Your task to perform on an android device: Add dell alienware to the cart on amazon, then select checkout. Image 0: 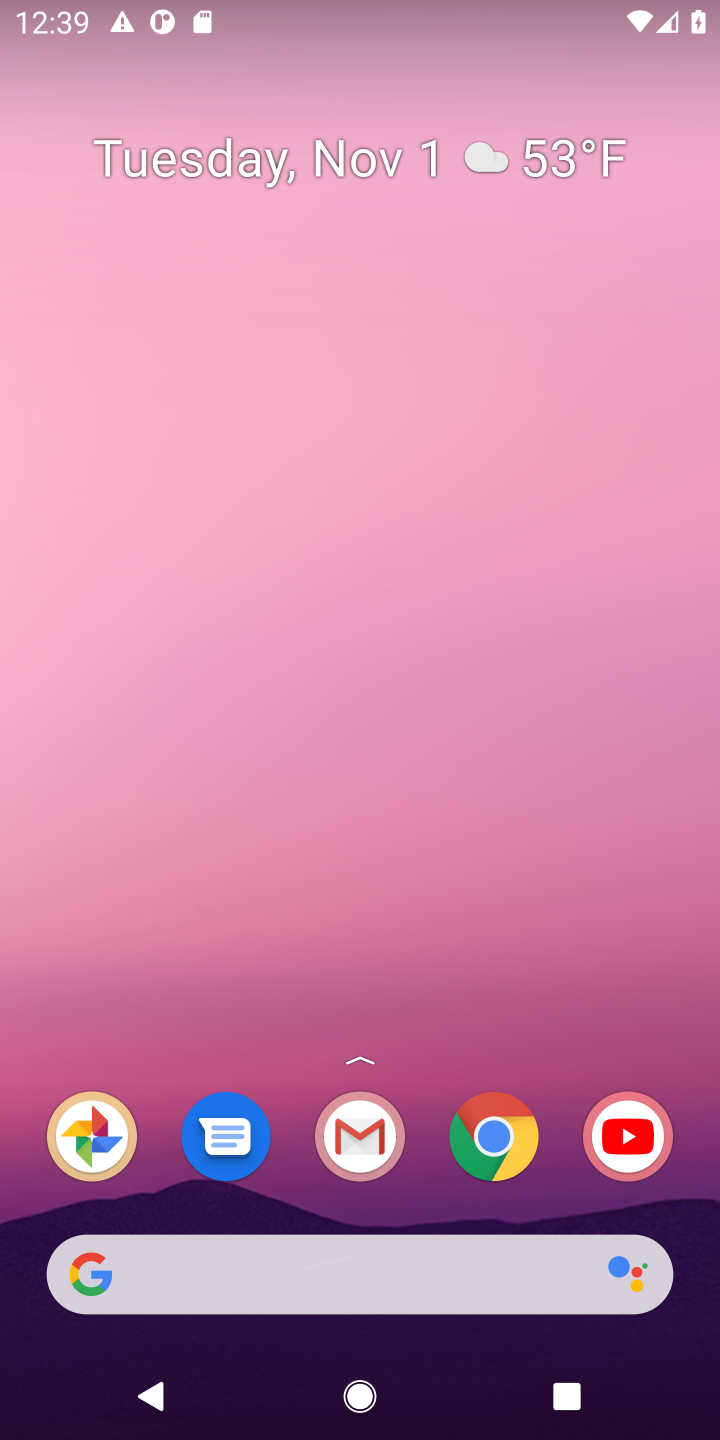
Step 0: click (150, 1280)
Your task to perform on an android device: Add dell alienware to the cart on amazon, then select checkout. Image 1: 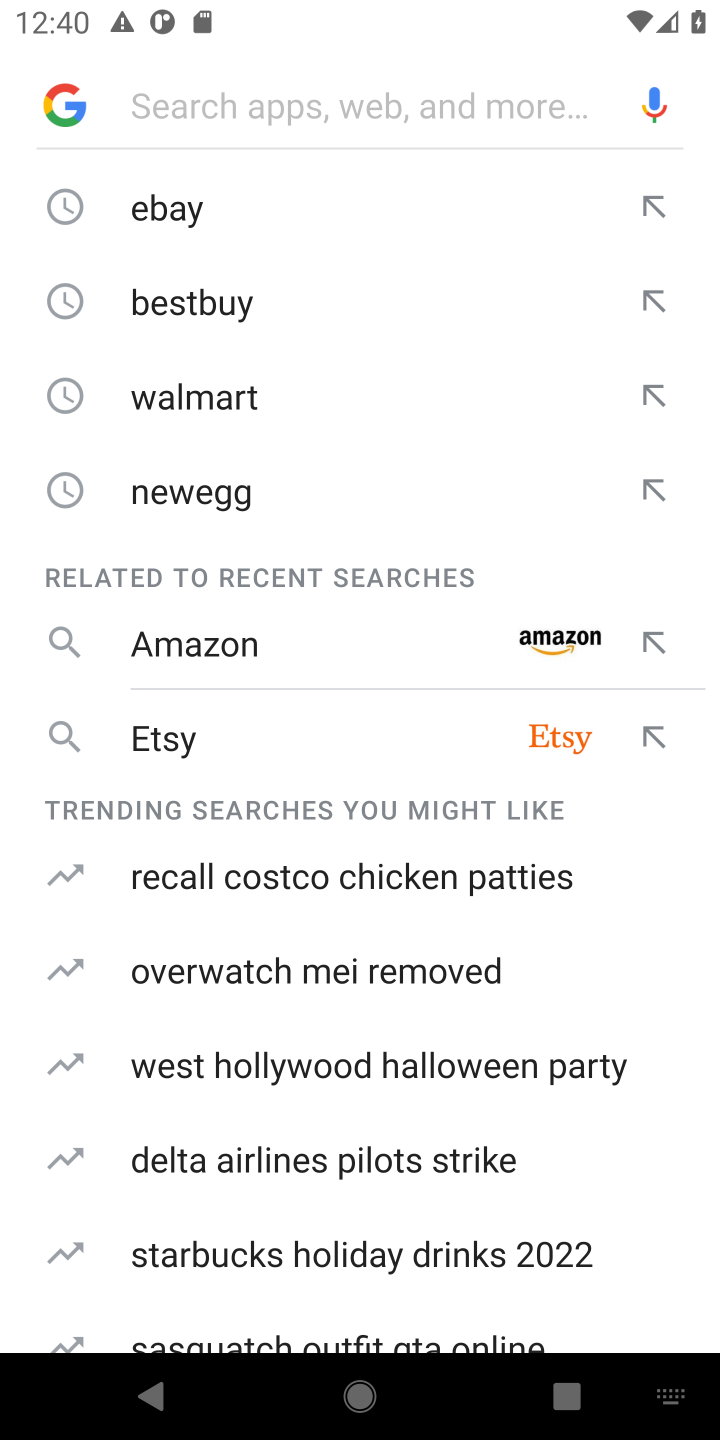
Step 1: type "amazon"
Your task to perform on an android device: Add dell alienware to the cart on amazon, then select checkout. Image 2: 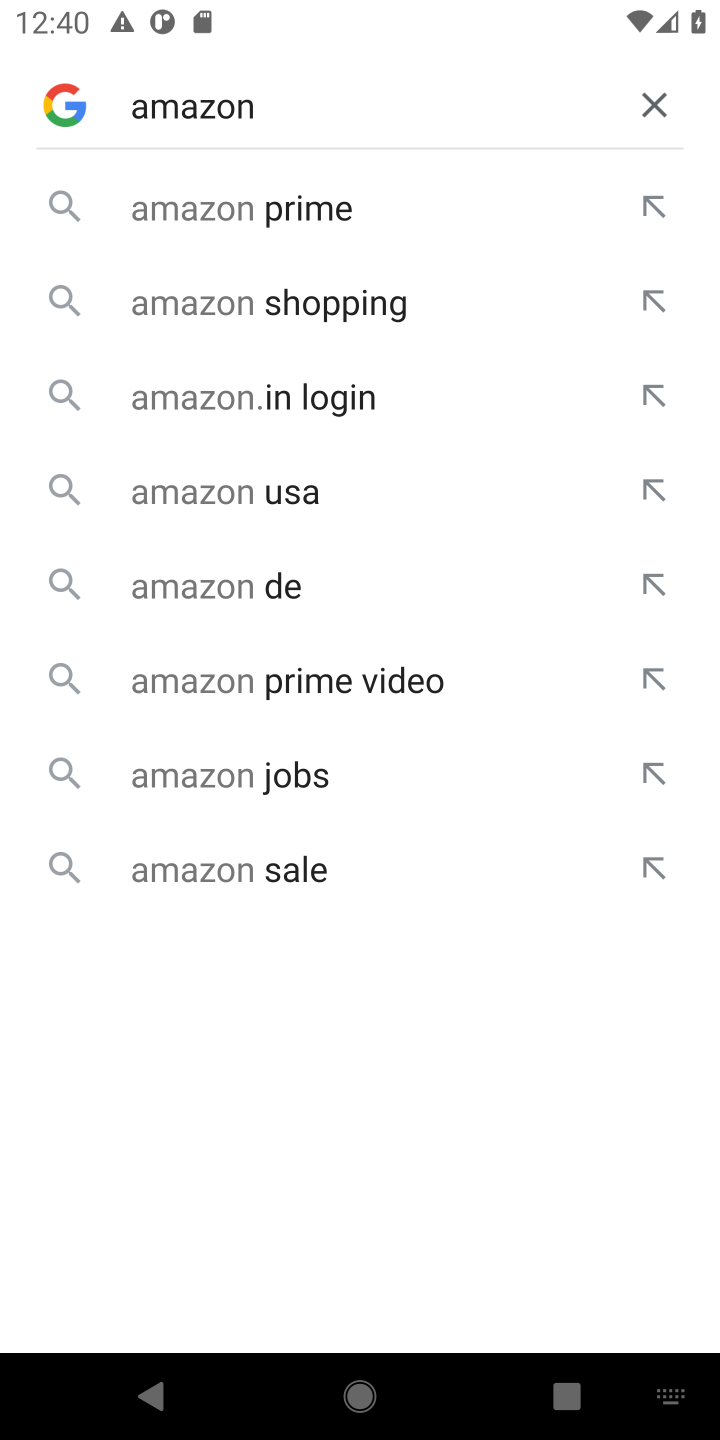
Step 2: press enter
Your task to perform on an android device: Add dell alienware to the cart on amazon, then select checkout. Image 3: 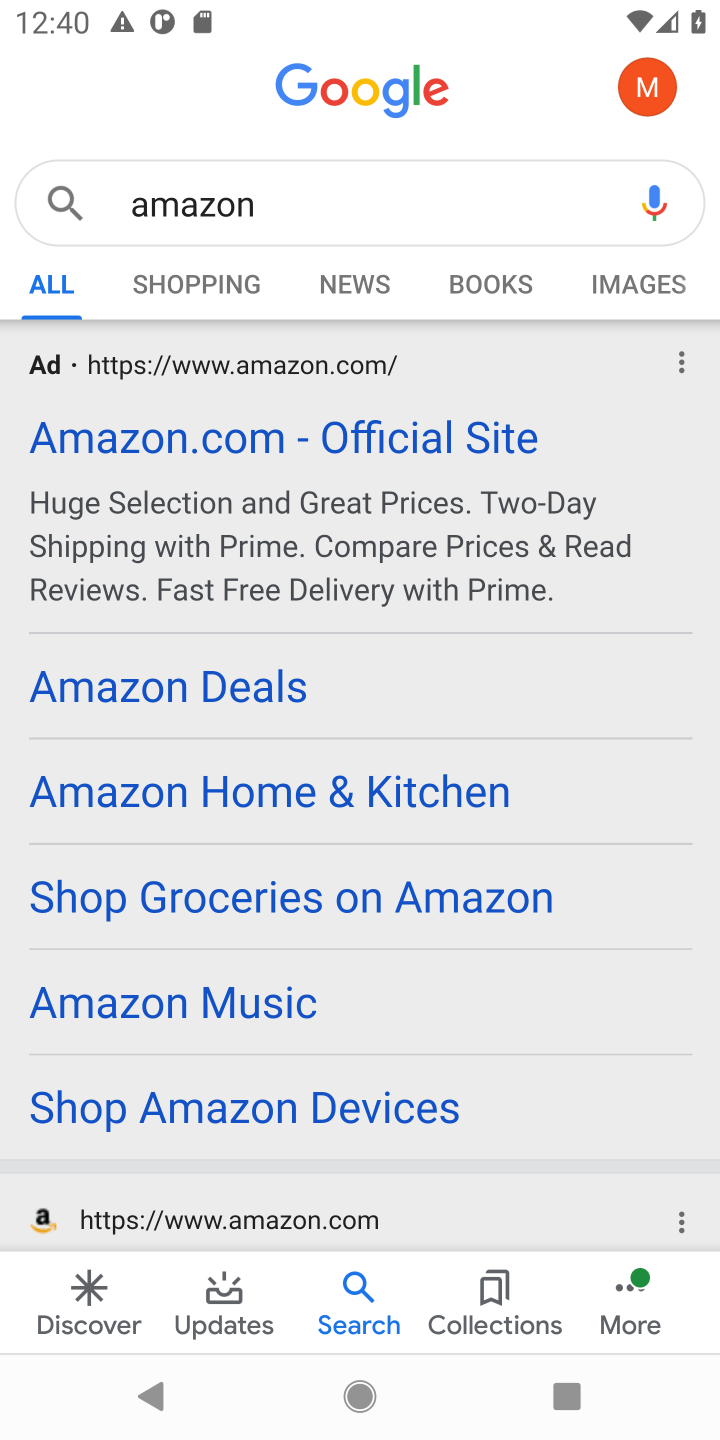
Step 3: click (227, 451)
Your task to perform on an android device: Add dell alienware to the cart on amazon, then select checkout. Image 4: 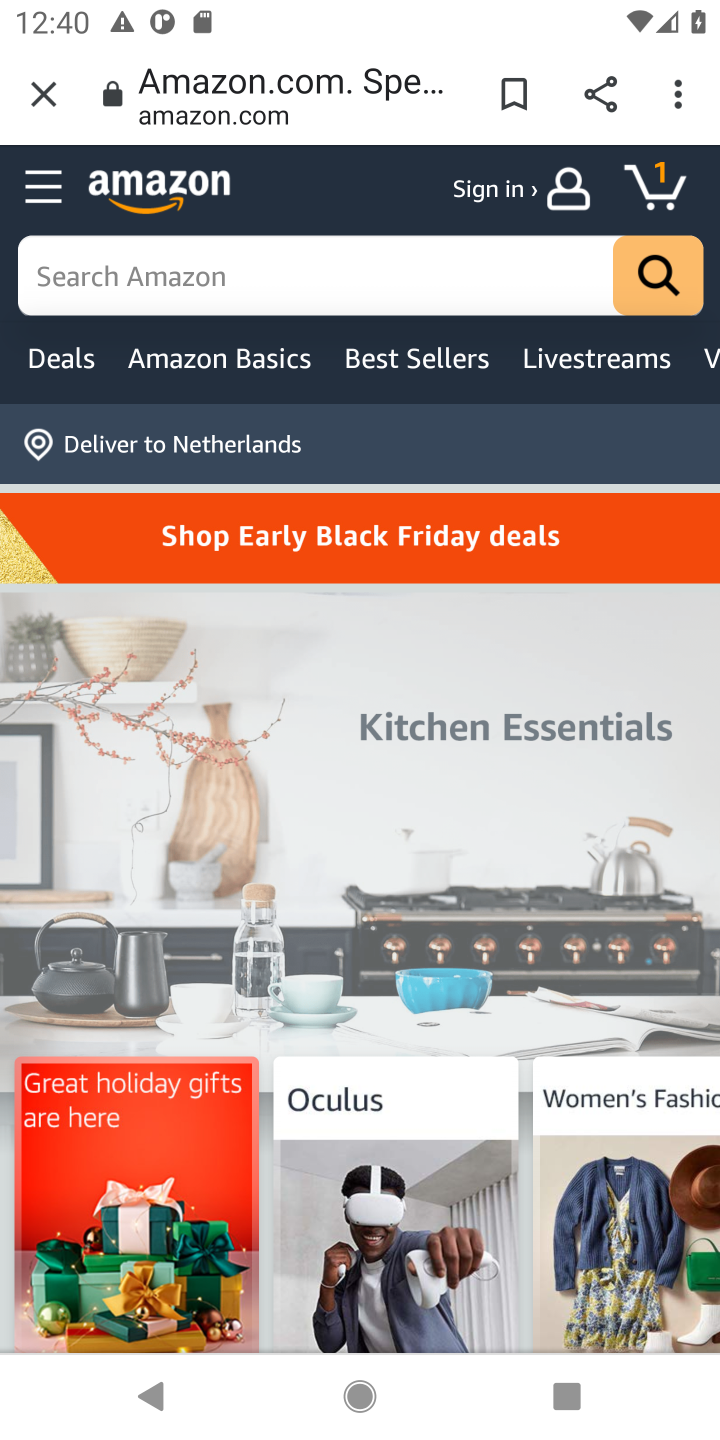
Step 4: click (73, 274)
Your task to perform on an android device: Add dell alienware to the cart on amazon, then select checkout. Image 5: 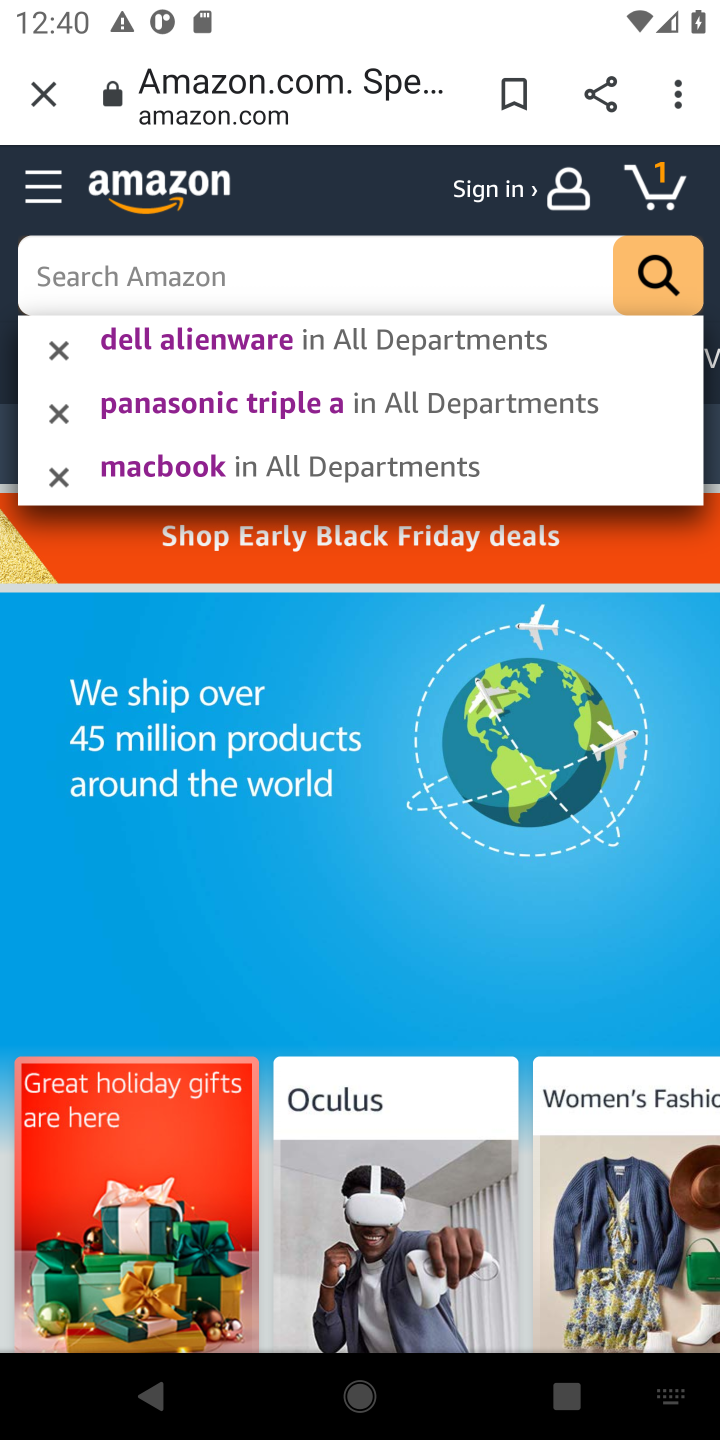
Step 5: click (219, 340)
Your task to perform on an android device: Add dell alienware to the cart on amazon, then select checkout. Image 6: 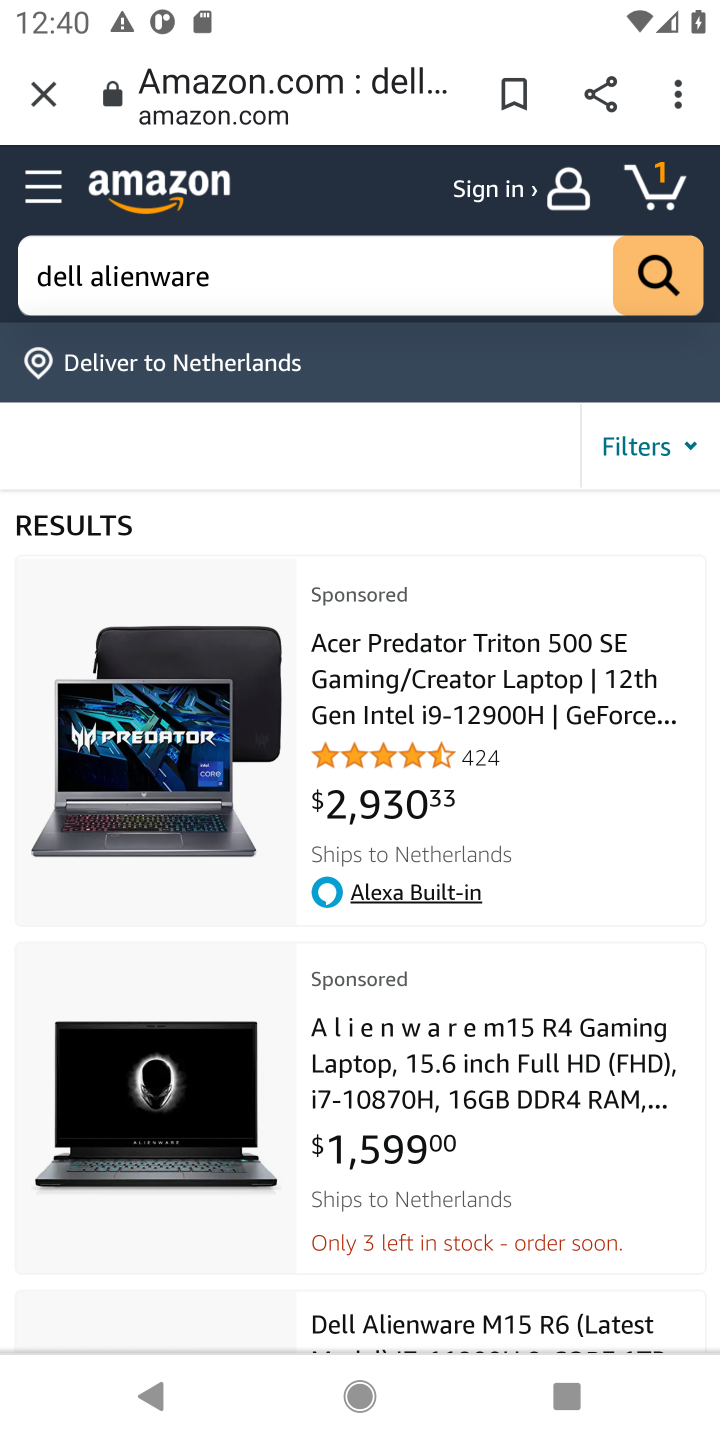
Step 6: drag from (535, 1034) to (580, 585)
Your task to perform on an android device: Add dell alienware to the cart on amazon, then select checkout. Image 7: 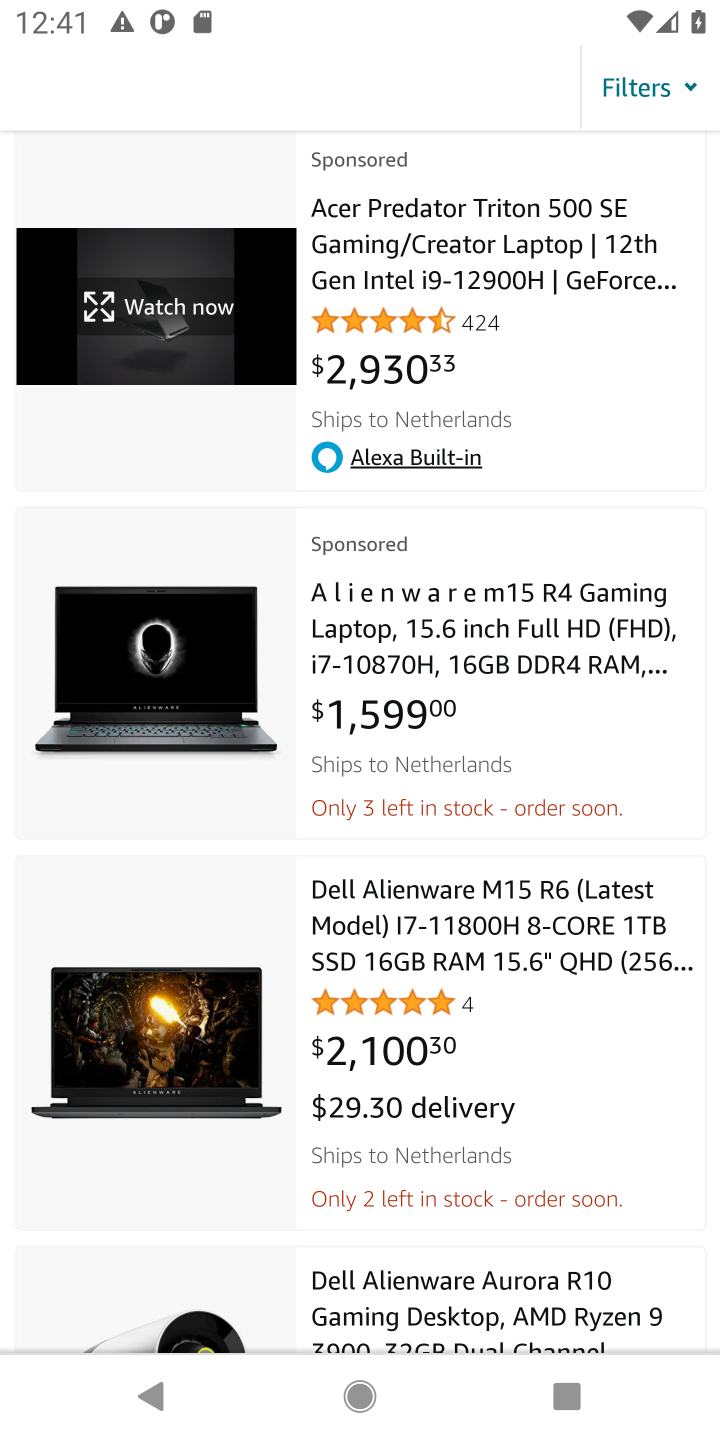
Step 7: drag from (502, 919) to (525, 501)
Your task to perform on an android device: Add dell alienware to the cart on amazon, then select checkout. Image 8: 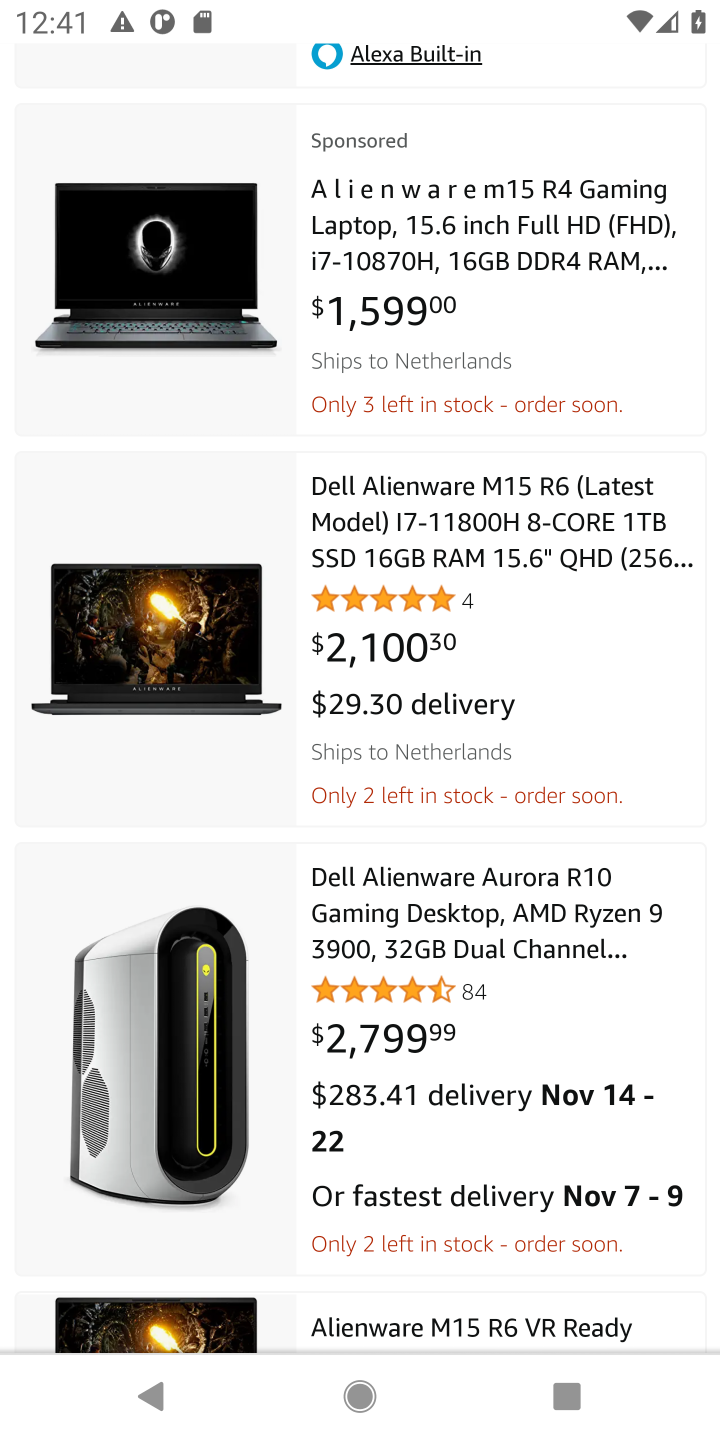
Step 8: click (393, 524)
Your task to perform on an android device: Add dell alienware to the cart on amazon, then select checkout. Image 9: 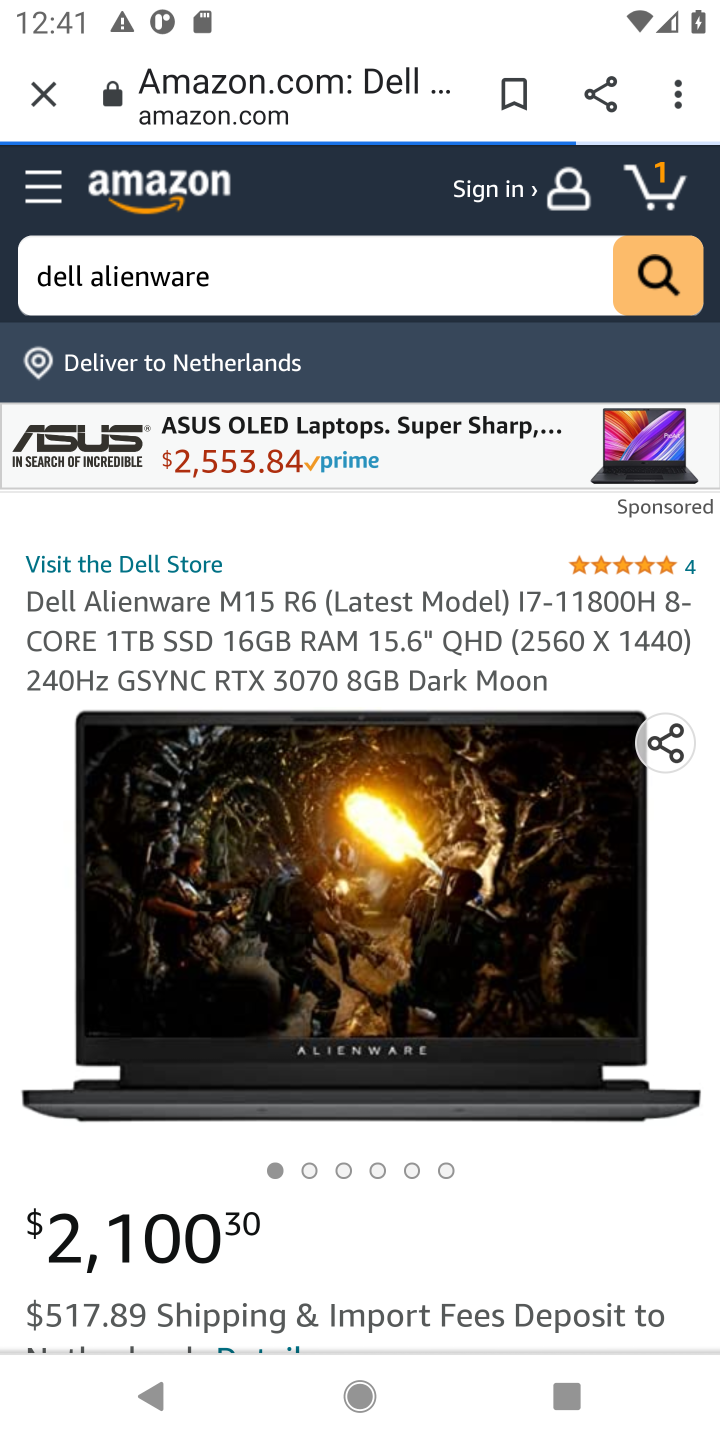
Step 9: drag from (440, 1068) to (471, 568)
Your task to perform on an android device: Add dell alienware to the cart on amazon, then select checkout. Image 10: 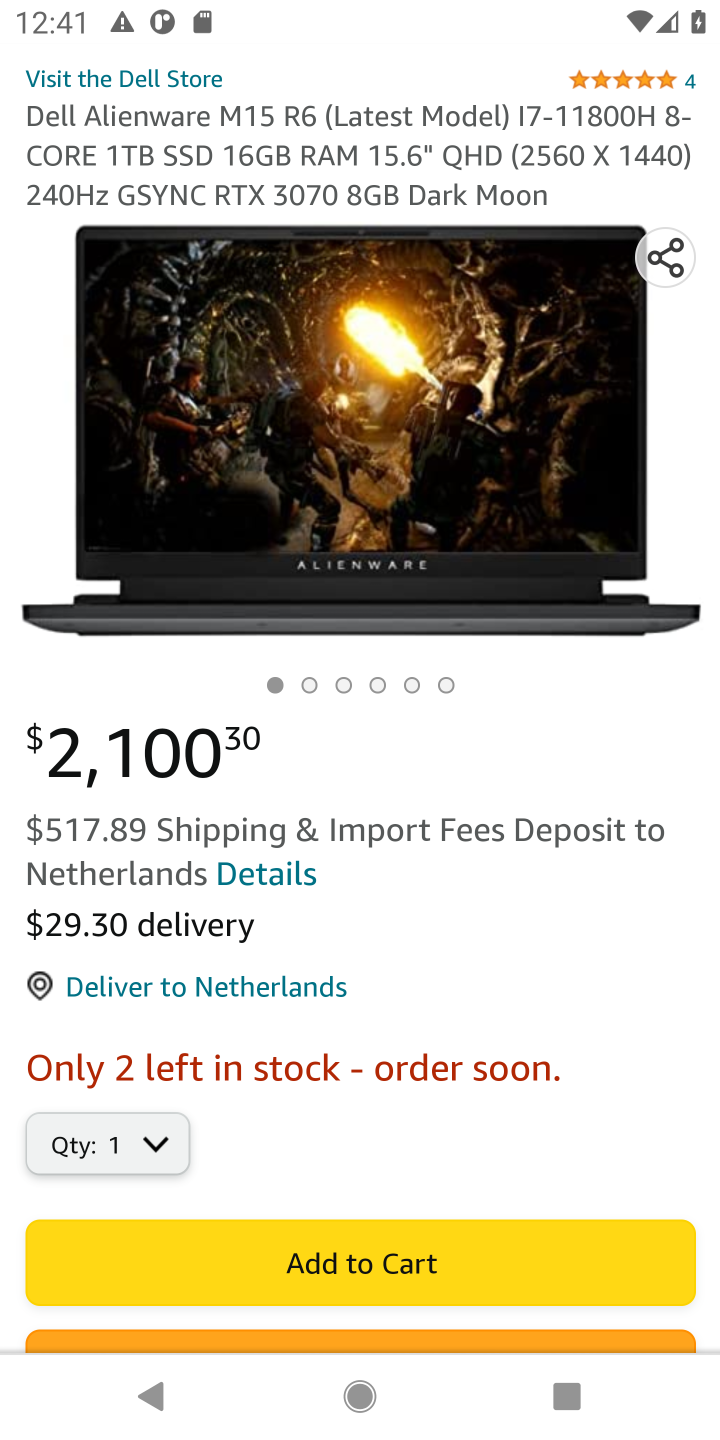
Step 10: drag from (401, 984) to (468, 351)
Your task to perform on an android device: Add dell alienware to the cart on amazon, then select checkout. Image 11: 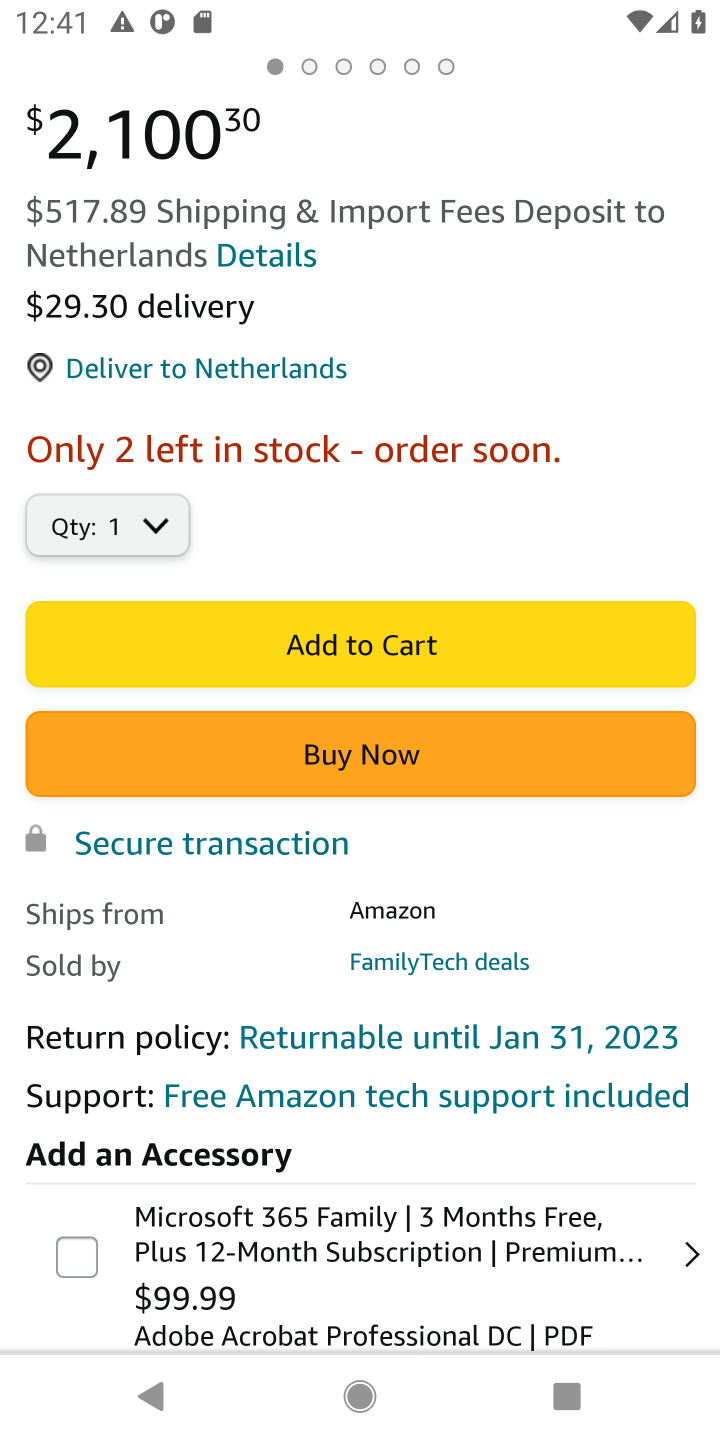
Step 11: click (338, 652)
Your task to perform on an android device: Add dell alienware to the cart on amazon, then select checkout. Image 12: 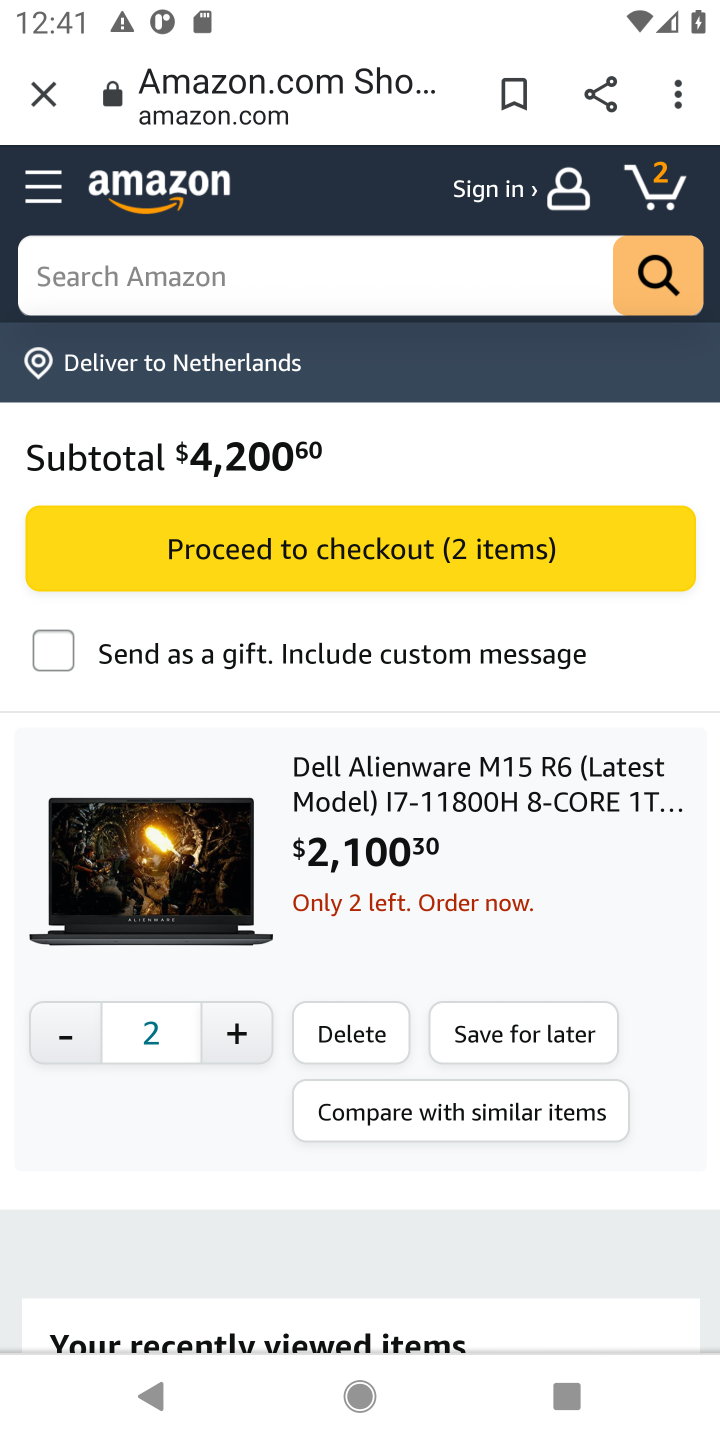
Step 12: click (361, 551)
Your task to perform on an android device: Add dell alienware to the cart on amazon, then select checkout. Image 13: 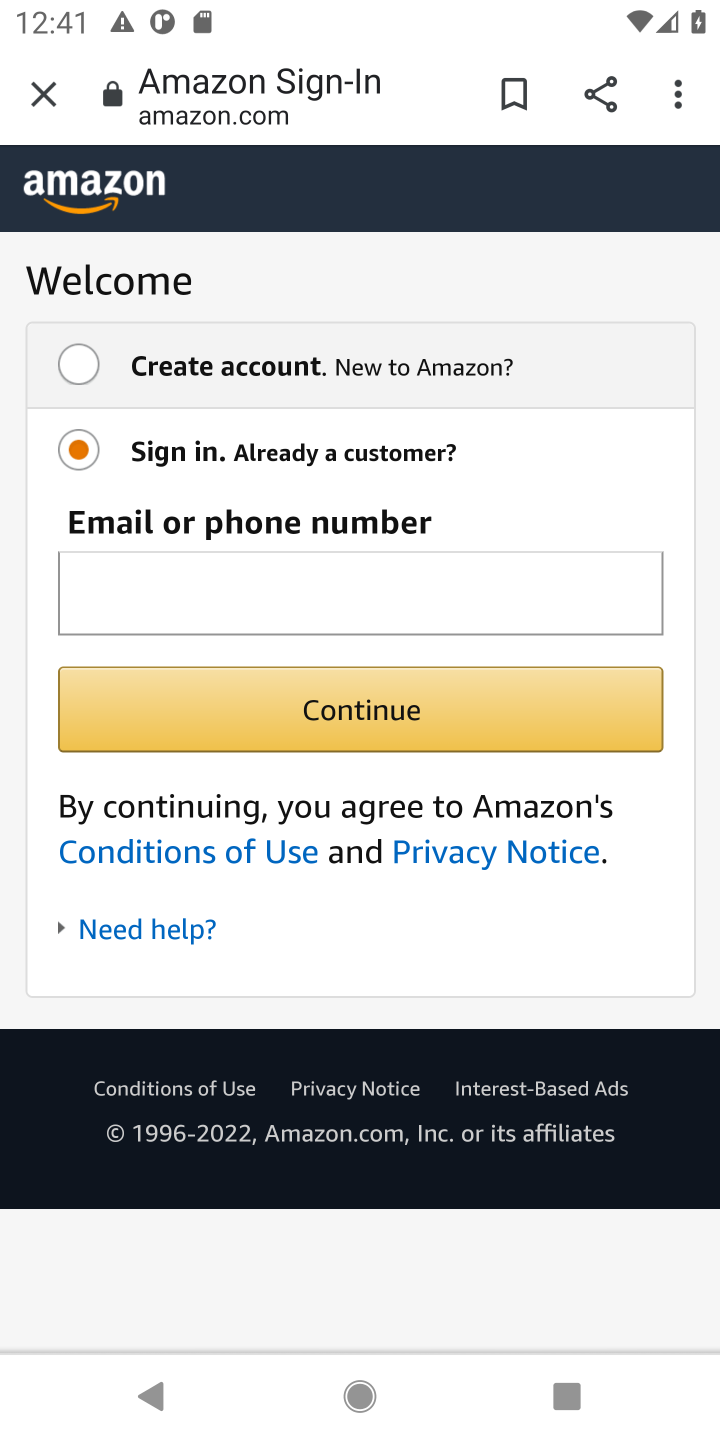
Step 13: task complete